Your task to perform on an android device: turn on sleep mode Image 0: 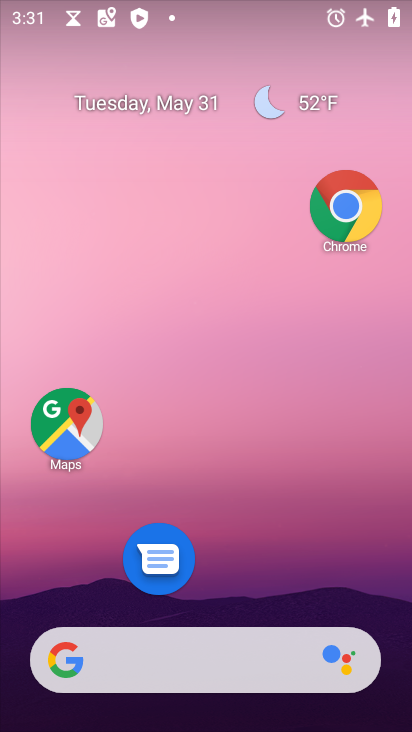
Step 0: drag from (38, 662) to (229, 234)
Your task to perform on an android device: turn on sleep mode Image 1: 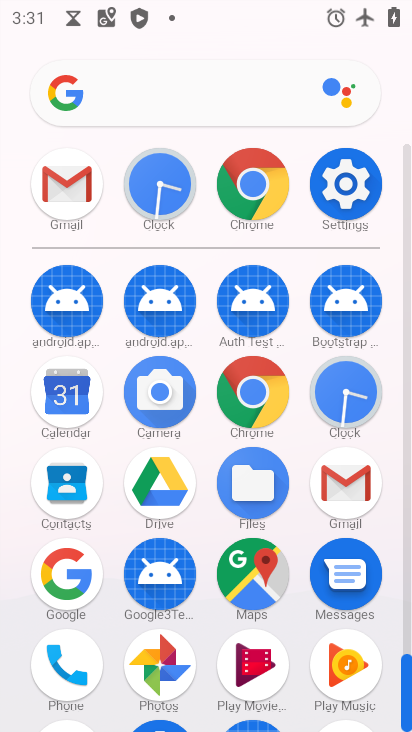
Step 1: click (348, 180)
Your task to perform on an android device: turn on sleep mode Image 2: 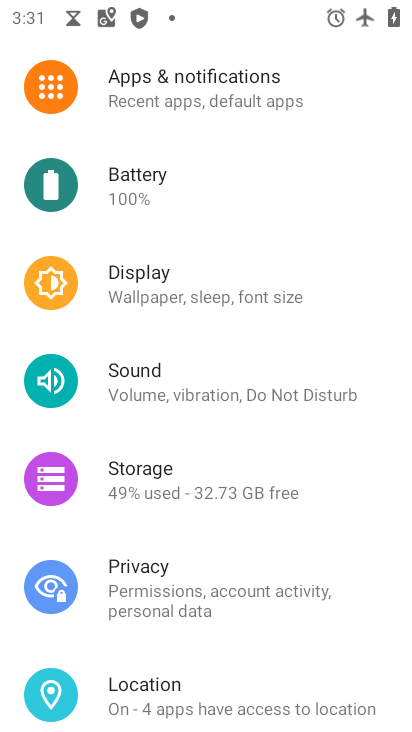
Step 2: task complete